Your task to perform on an android device: turn pop-ups on in chrome Image 0: 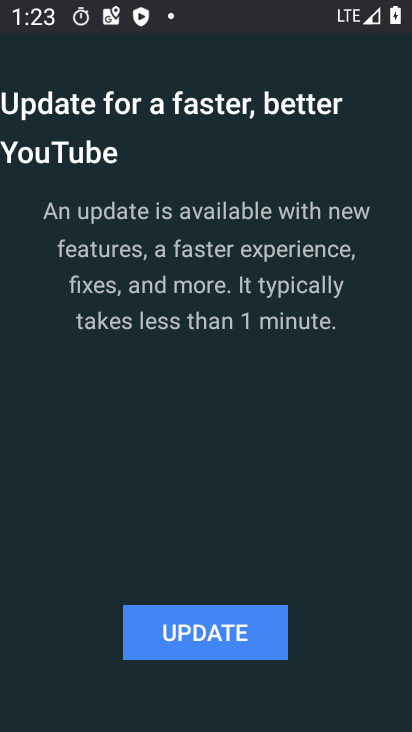
Step 0: click (191, 627)
Your task to perform on an android device: turn pop-ups on in chrome Image 1: 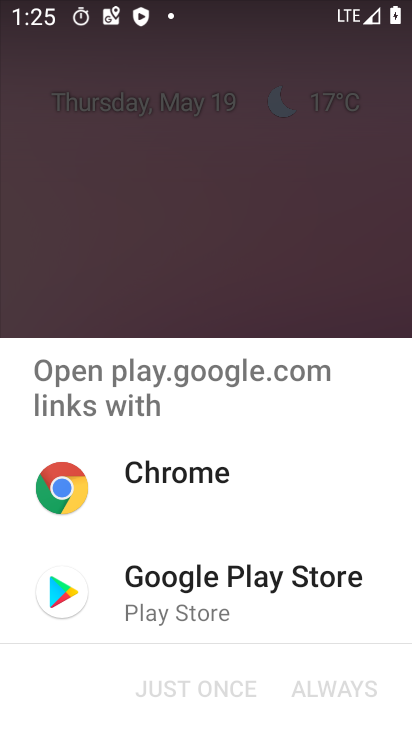
Step 1: click (253, 168)
Your task to perform on an android device: turn pop-ups on in chrome Image 2: 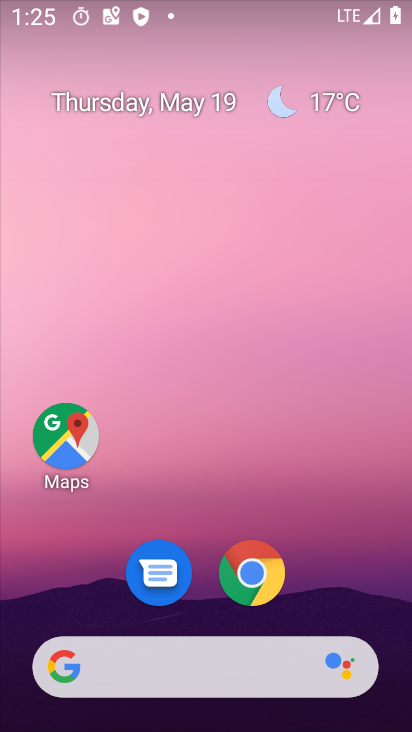
Step 2: click (248, 587)
Your task to perform on an android device: turn pop-ups on in chrome Image 3: 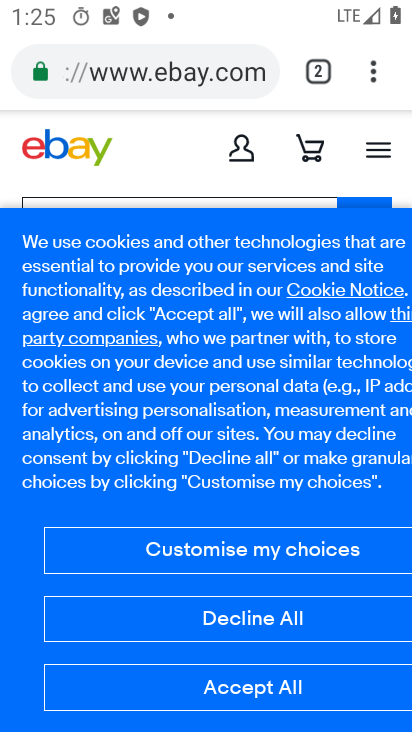
Step 3: drag from (381, 56) to (191, 599)
Your task to perform on an android device: turn pop-ups on in chrome Image 4: 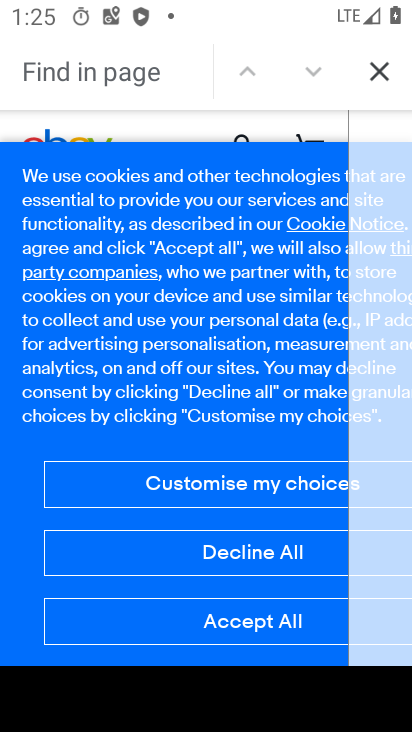
Step 4: click (378, 76)
Your task to perform on an android device: turn pop-ups on in chrome Image 5: 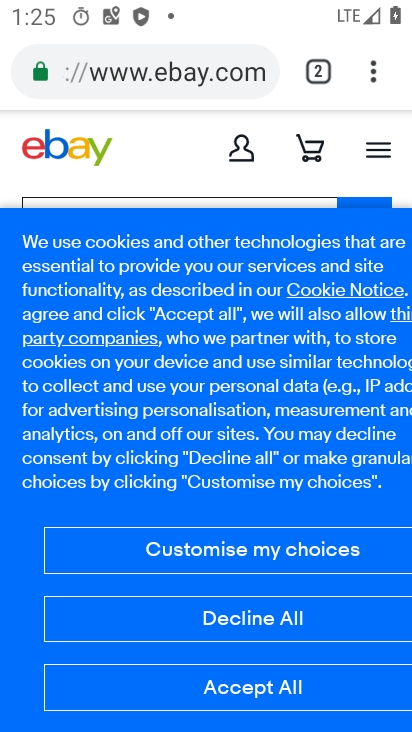
Step 5: drag from (375, 76) to (147, 561)
Your task to perform on an android device: turn pop-ups on in chrome Image 6: 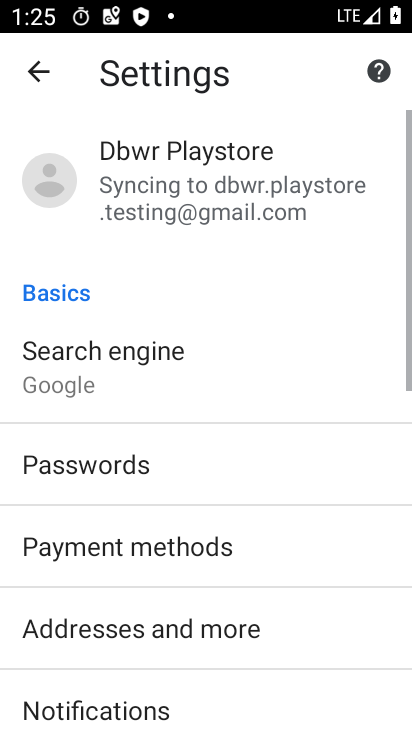
Step 6: drag from (105, 641) to (241, 105)
Your task to perform on an android device: turn pop-ups on in chrome Image 7: 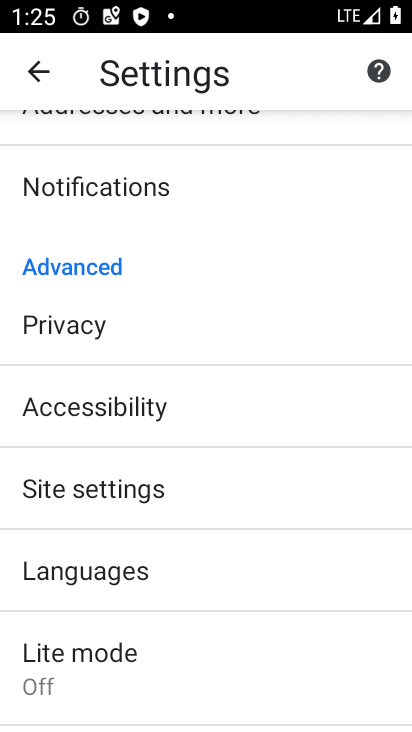
Step 7: click (82, 495)
Your task to perform on an android device: turn pop-ups on in chrome Image 8: 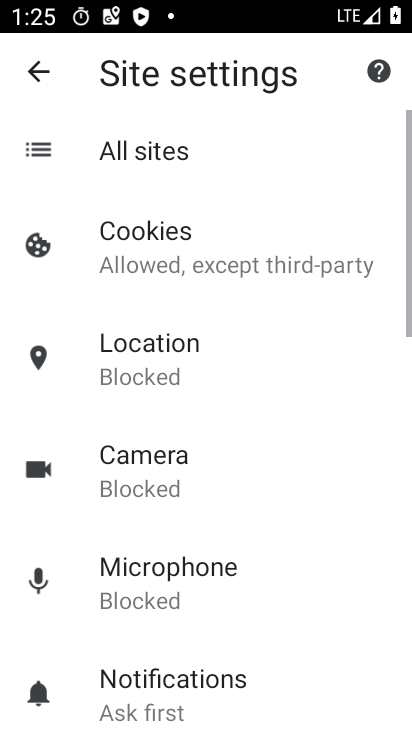
Step 8: drag from (162, 662) to (257, 209)
Your task to perform on an android device: turn pop-ups on in chrome Image 9: 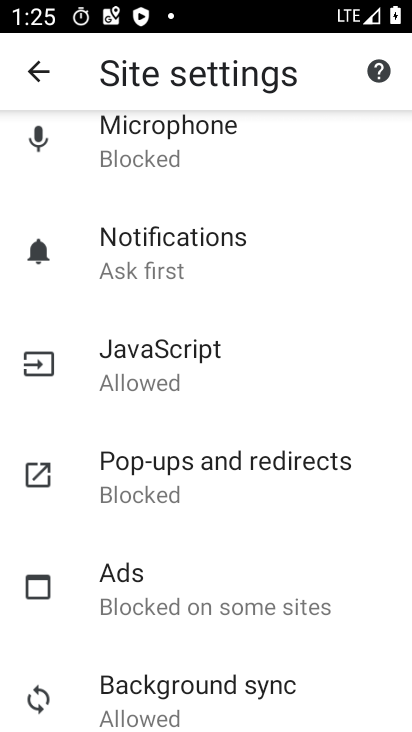
Step 9: click (142, 487)
Your task to perform on an android device: turn pop-ups on in chrome Image 10: 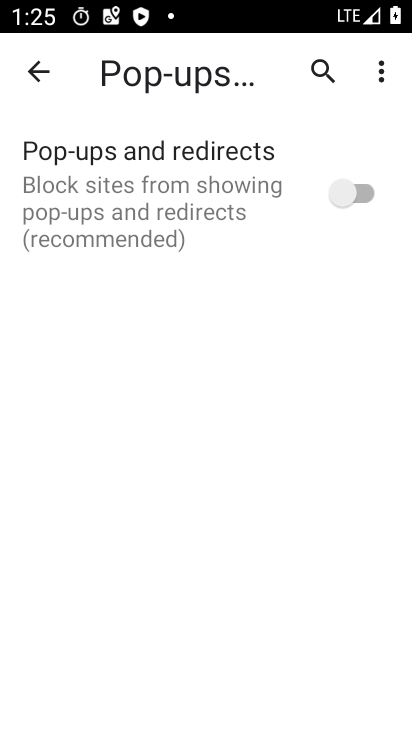
Step 10: click (337, 195)
Your task to perform on an android device: turn pop-ups on in chrome Image 11: 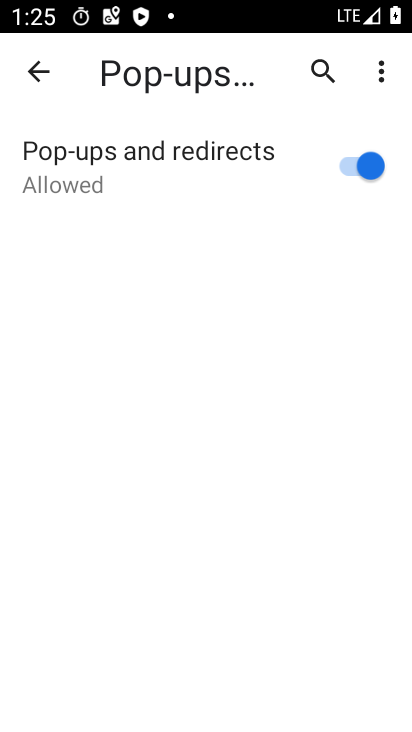
Step 11: task complete